Your task to perform on an android device: Find coffee shops on Maps Image 0: 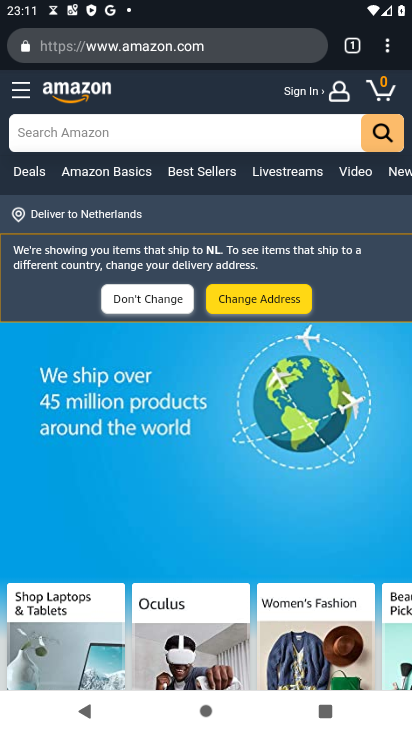
Step 0: press home button
Your task to perform on an android device: Find coffee shops on Maps Image 1: 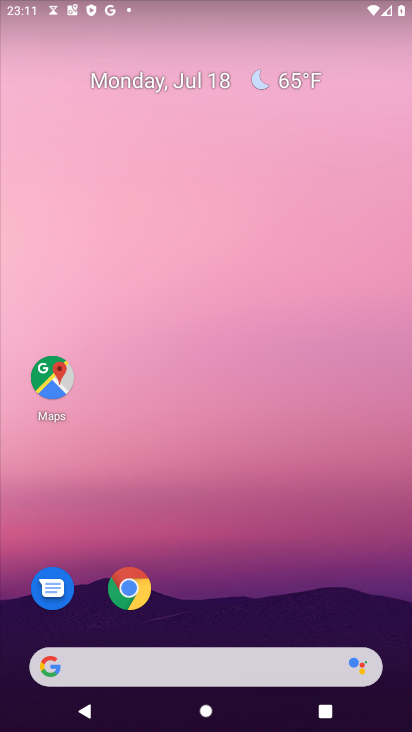
Step 1: click (51, 378)
Your task to perform on an android device: Find coffee shops on Maps Image 2: 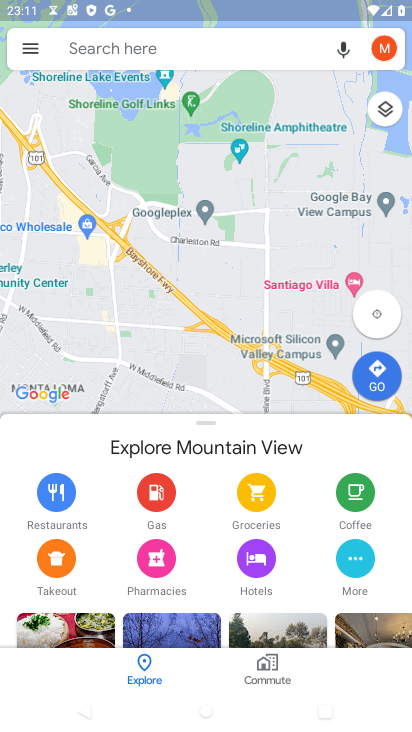
Step 2: click (225, 52)
Your task to perform on an android device: Find coffee shops on Maps Image 3: 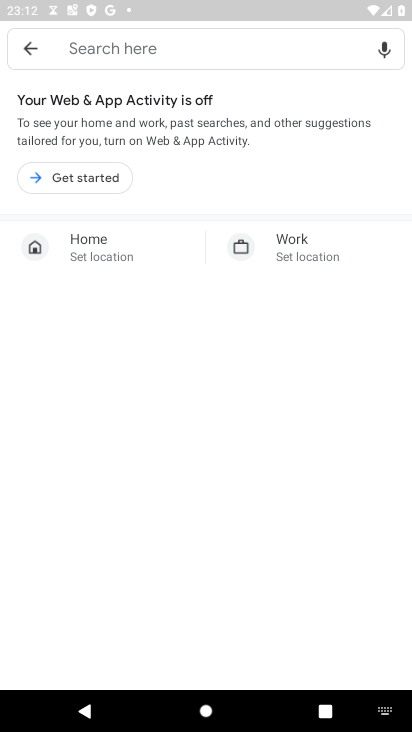
Step 3: type "coffee shops"
Your task to perform on an android device: Find coffee shops on Maps Image 4: 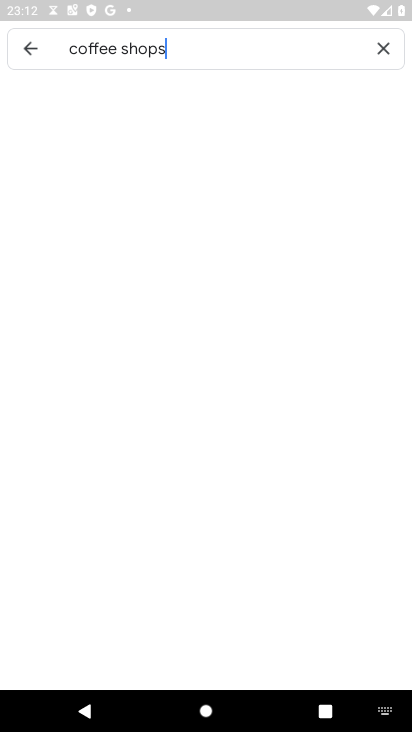
Step 4: type ""
Your task to perform on an android device: Find coffee shops on Maps Image 5: 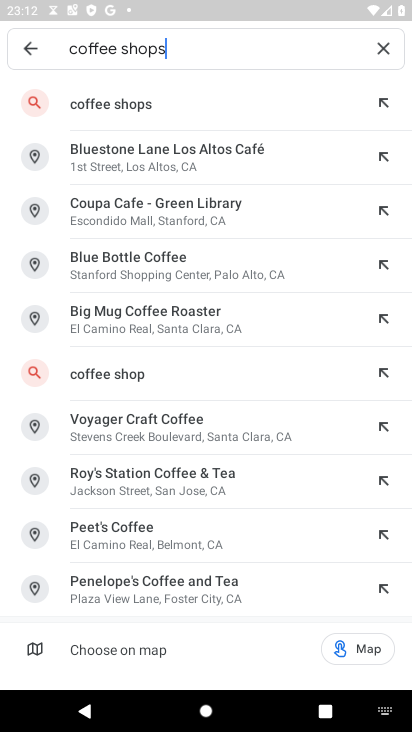
Step 5: click (134, 109)
Your task to perform on an android device: Find coffee shops on Maps Image 6: 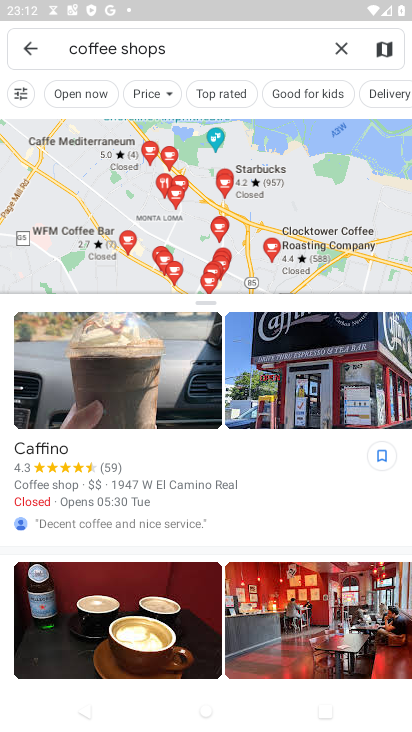
Step 6: task complete